Your task to perform on an android device: Open privacy settings Image 0: 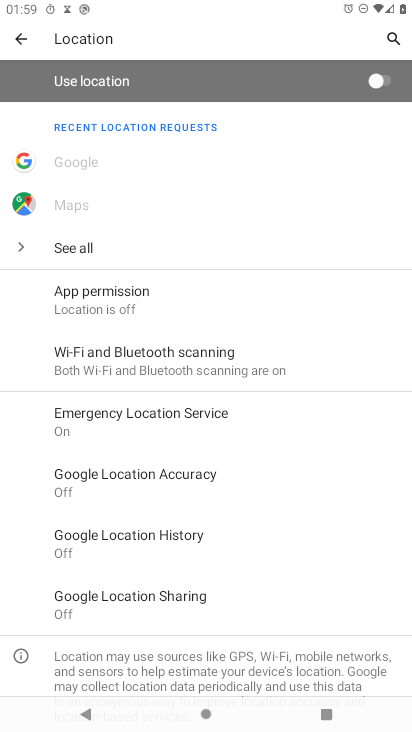
Step 0: press home button
Your task to perform on an android device: Open privacy settings Image 1: 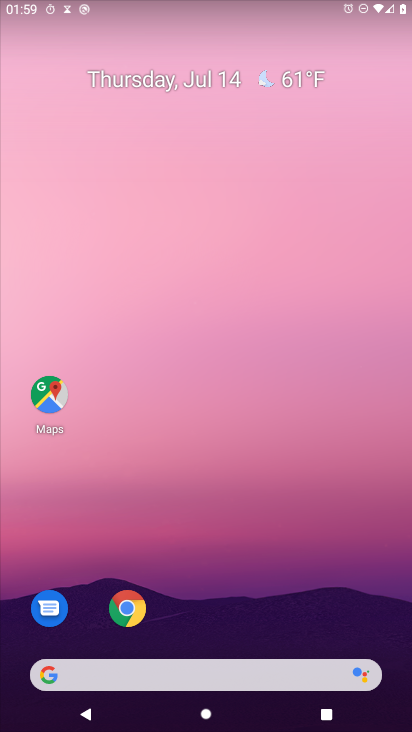
Step 1: drag from (237, 589) to (251, 94)
Your task to perform on an android device: Open privacy settings Image 2: 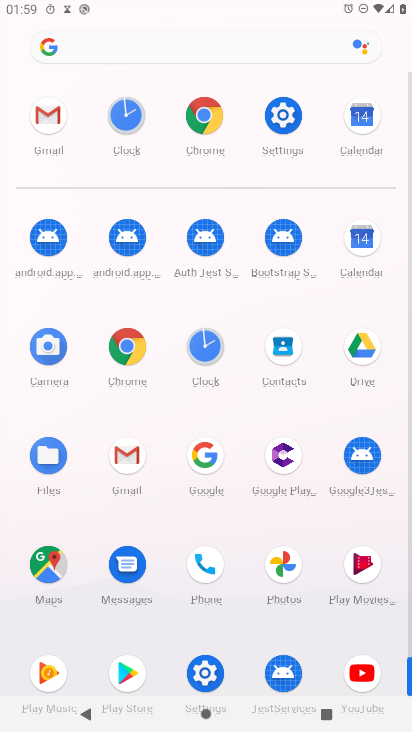
Step 2: click (291, 120)
Your task to perform on an android device: Open privacy settings Image 3: 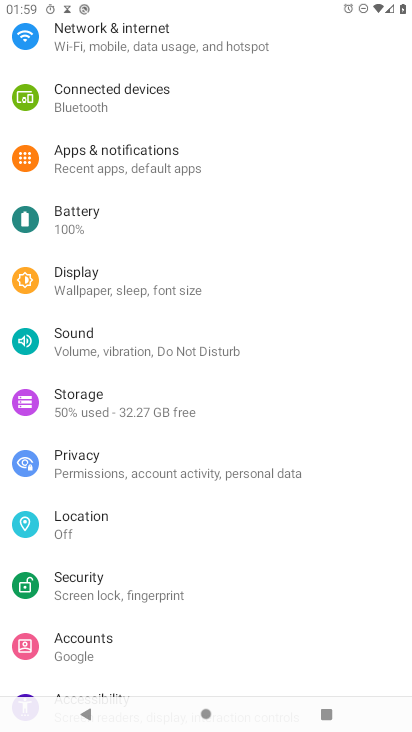
Step 3: drag from (219, 70) to (220, 337)
Your task to perform on an android device: Open privacy settings Image 4: 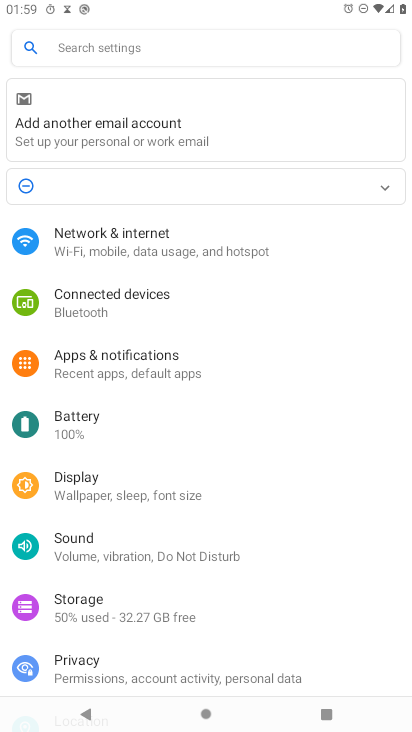
Step 4: click (127, 660)
Your task to perform on an android device: Open privacy settings Image 5: 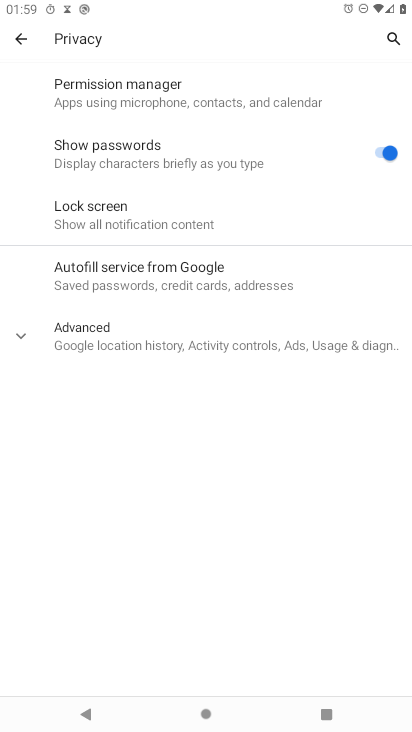
Step 5: task complete